Your task to perform on an android device: turn off picture-in-picture Image 0: 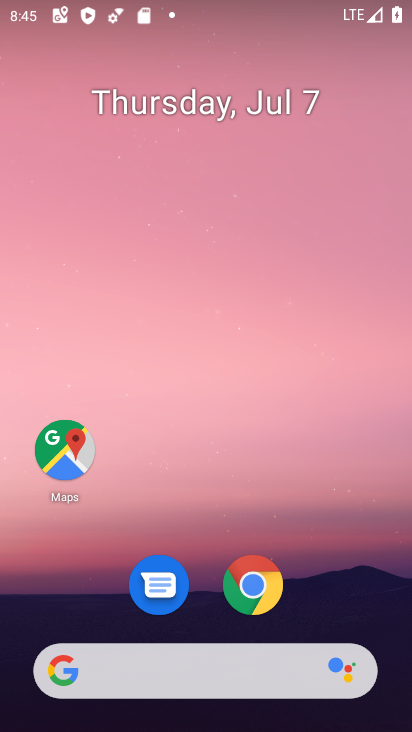
Step 0: click (264, 588)
Your task to perform on an android device: turn off picture-in-picture Image 1: 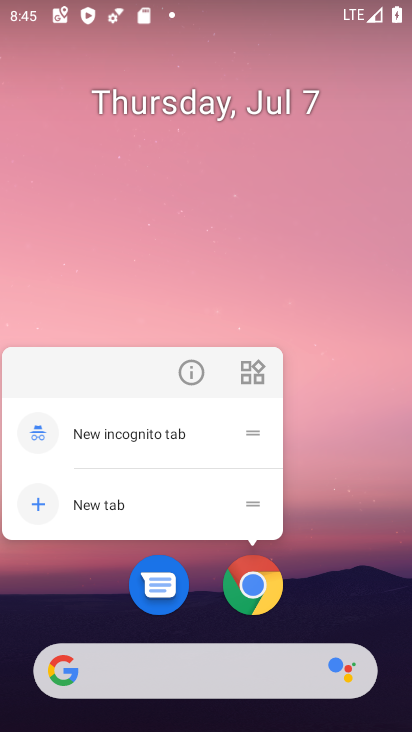
Step 1: click (192, 373)
Your task to perform on an android device: turn off picture-in-picture Image 2: 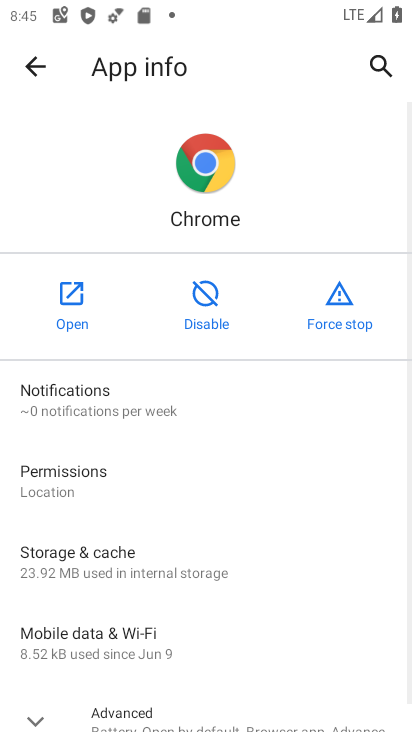
Step 2: drag from (219, 504) to (281, 142)
Your task to perform on an android device: turn off picture-in-picture Image 3: 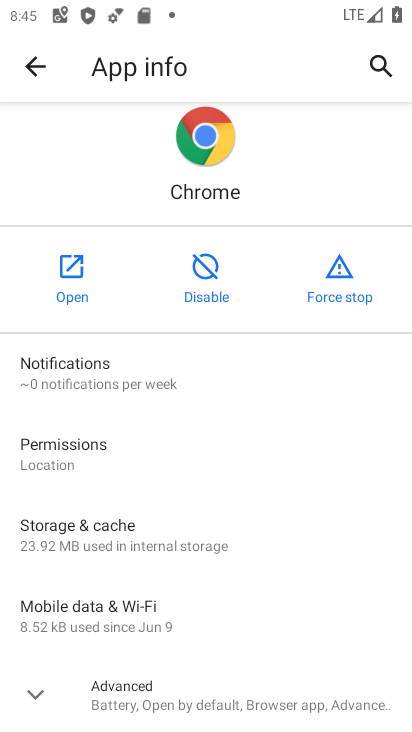
Step 3: click (36, 690)
Your task to perform on an android device: turn off picture-in-picture Image 4: 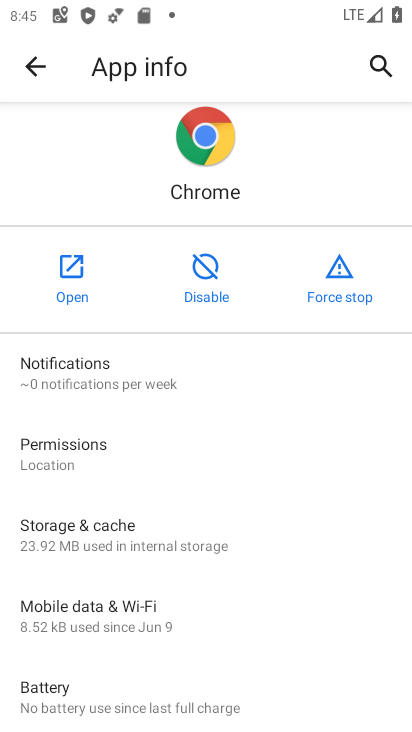
Step 4: drag from (235, 592) to (287, 117)
Your task to perform on an android device: turn off picture-in-picture Image 5: 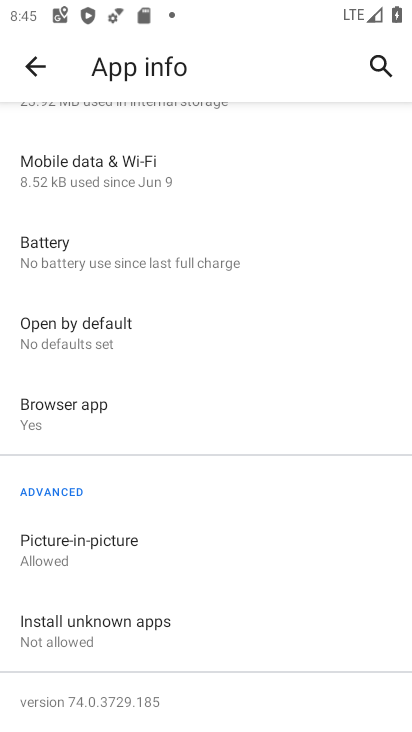
Step 5: click (143, 553)
Your task to perform on an android device: turn off picture-in-picture Image 6: 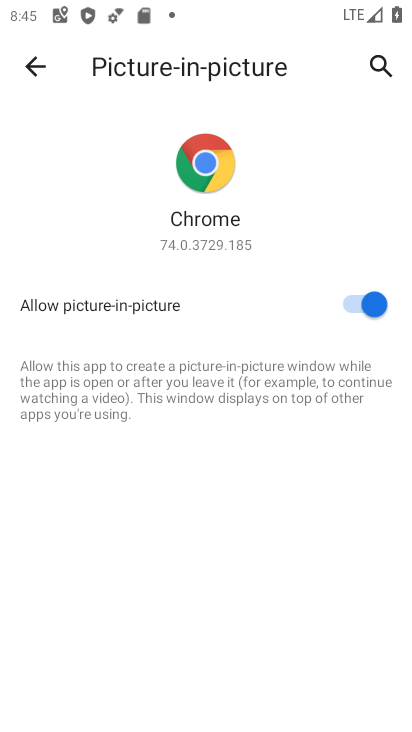
Step 6: click (361, 299)
Your task to perform on an android device: turn off picture-in-picture Image 7: 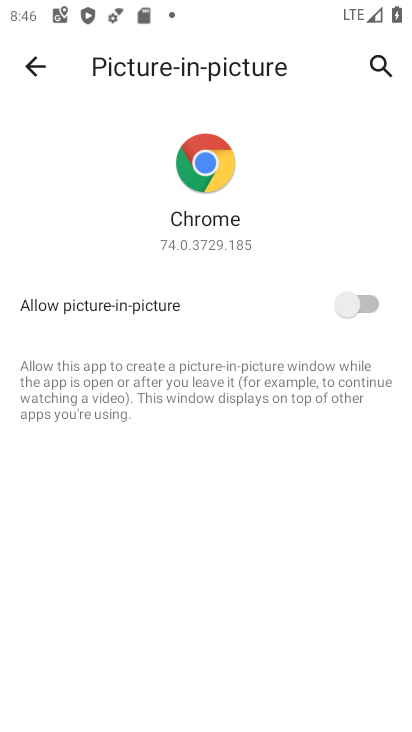
Step 7: task complete